Your task to perform on an android device: Open the calendar app, open the side menu, and click the "Day" option Image 0: 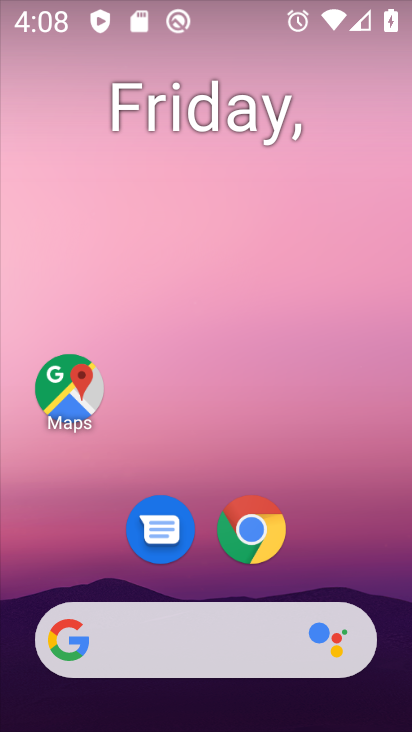
Step 0: drag from (98, 584) to (217, 121)
Your task to perform on an android device: Open the calendar app, open the side menu, and click the "Day" option Image 1: 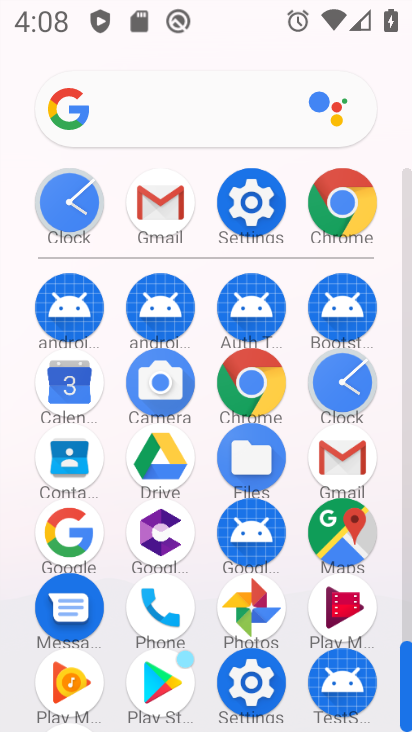
Step 1: click (71, 396)
Your task to perform on an android device: Open the calendar app, open the side menu, and click the "Day" option Image 2: 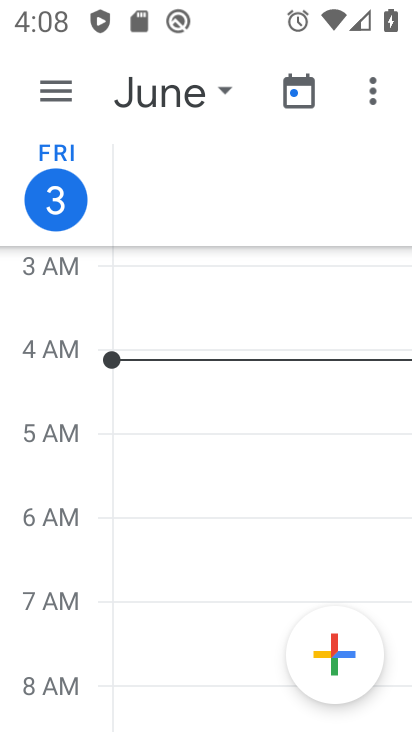
Step 2: click (76, 109)
Your task to perform on an android device: Open the calendar app, open the side menu, and click the "Day" option Image 3: 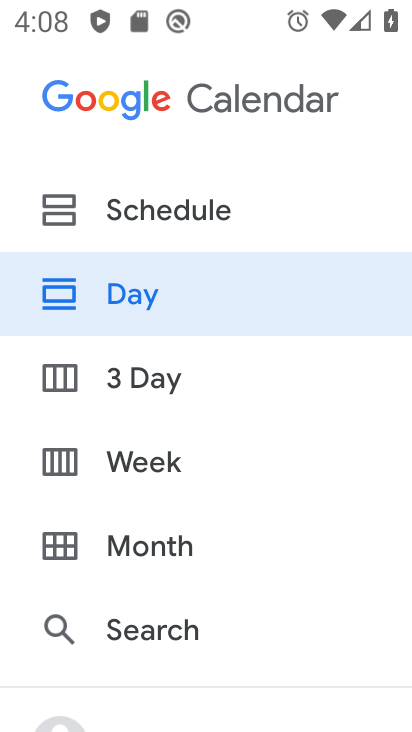
Step 3: click (183, 296)
Your task to perform on an android device: Open the calendar app, open the side menu, and click the "Day" option Image 4: 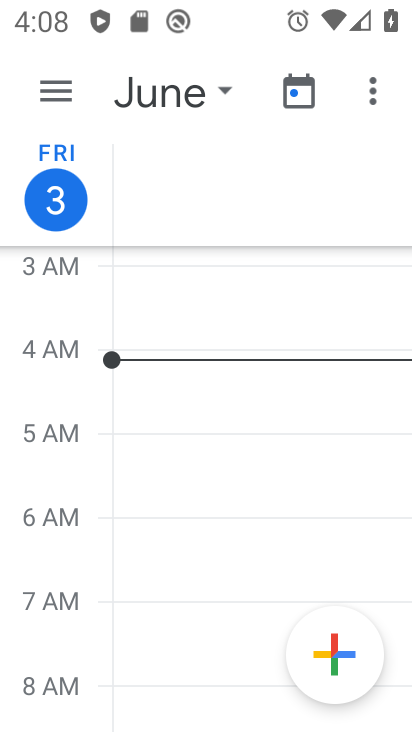
Step 4: task complete